Your task to perform on an android device: Open Google Maps Image 0: 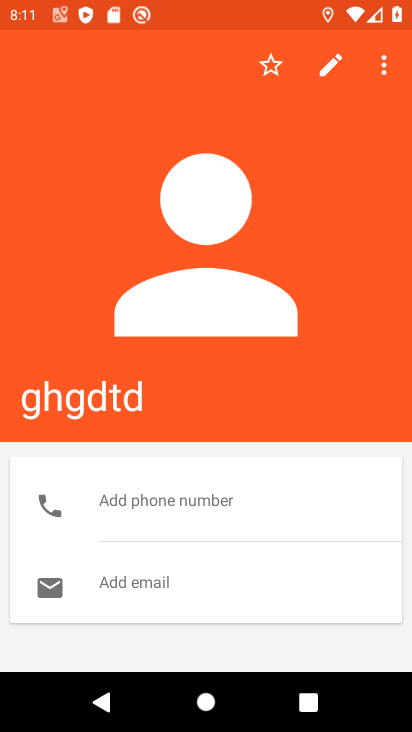
Step 0: press home button
Your task to perform on an android device: Open Google Maps Image 1: 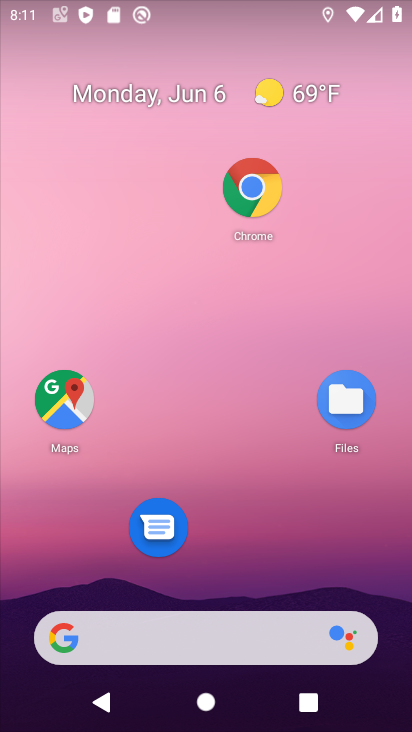
Step 1: click (62, 403)
Your task to perform on an android device: Open Google Maps Image 2: 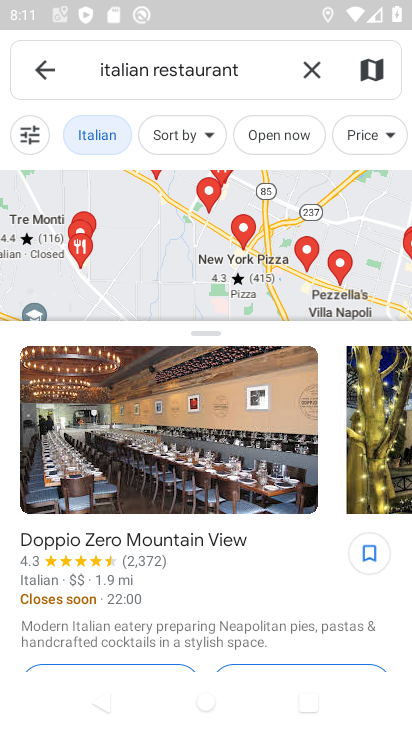
Step 2: task complete